Your task to perform on an android device: change the clock display to analog Image 0: 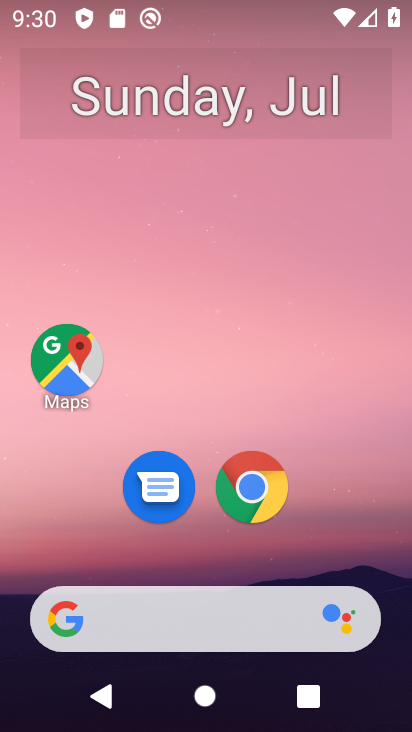
Step 0: drag from (167, 487) to (198, 9)
Your task to perform on an android device: change the clock display to analog Image 1: 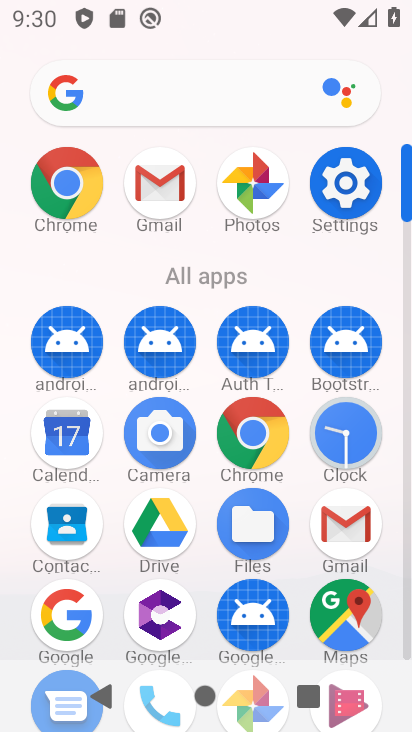
Step 1: click (330, 427)
Your task to perform on an android device: change the clock display to analog Image 2: 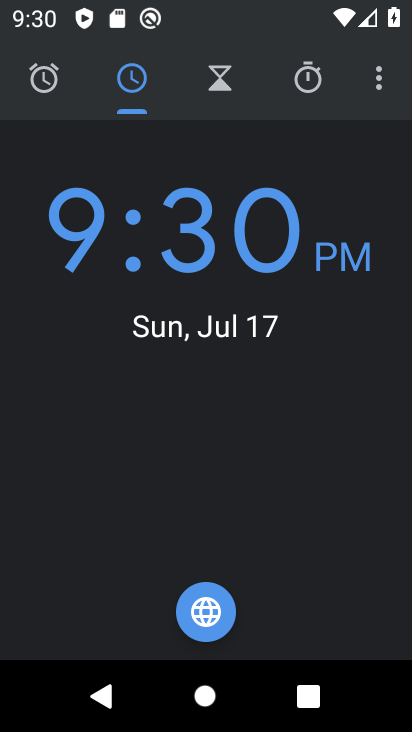
Step 2: click (382, 86)
Your task to perform on an android device: change the clock display to analog Image 3: 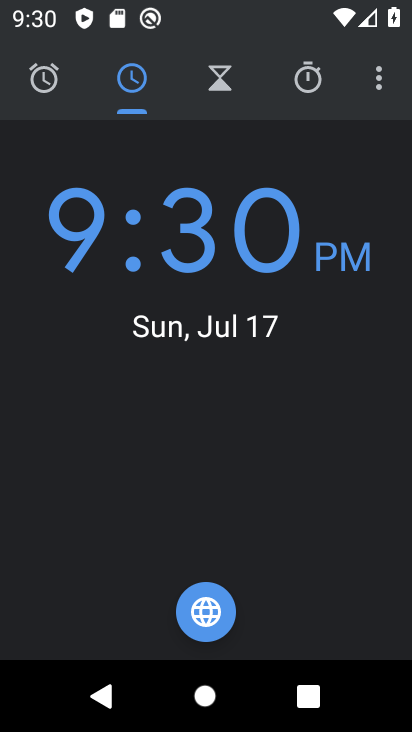
Step 3: click (375, 83)
Your task to perform on an android device: change the clock display to analog Image 4: 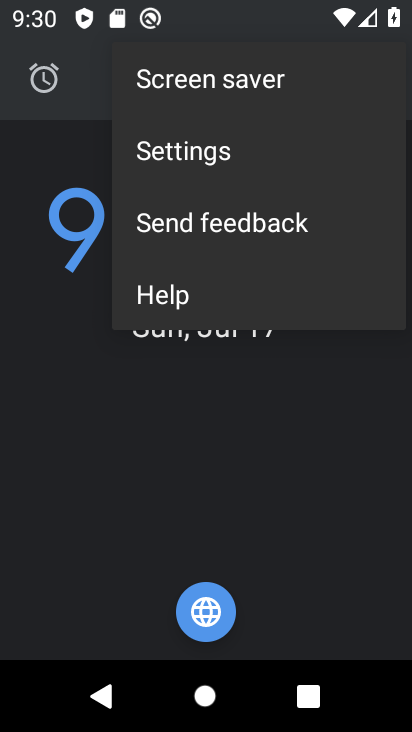
Step 4: click (177, 161)
Your task to perform on an android device: change the clock display to analog Image 5: 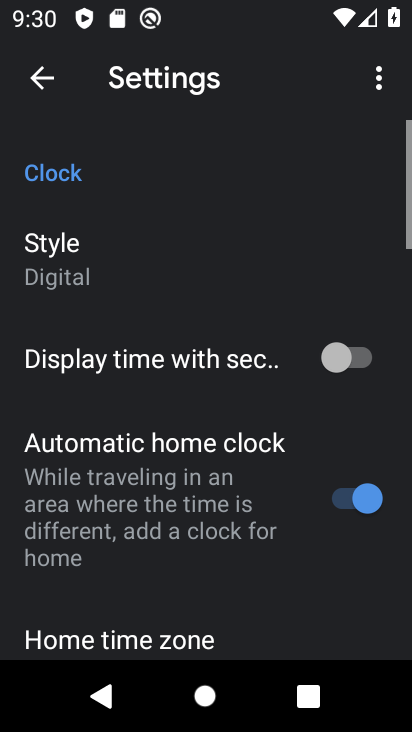
Step 5: click (90, 247)
Your task to perform on an android device: change the clock display to analog Image 6: 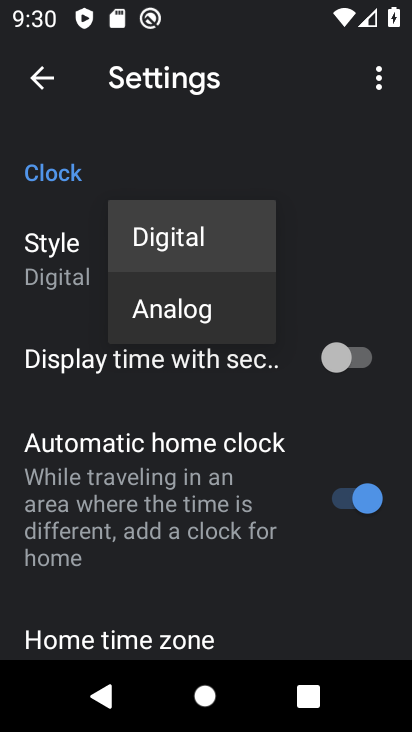
Step 6: click (184, 318)
Your task to perform on an android device: change the clock display to analog Image 7: 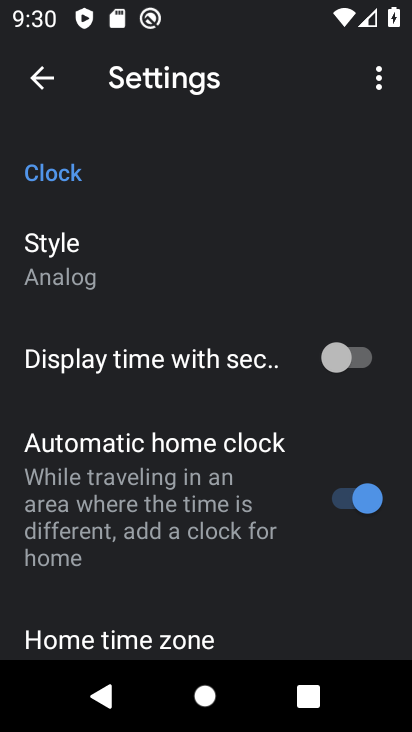
Step 7: task complete